Your task to perform on an android device: check google app version Image 0: 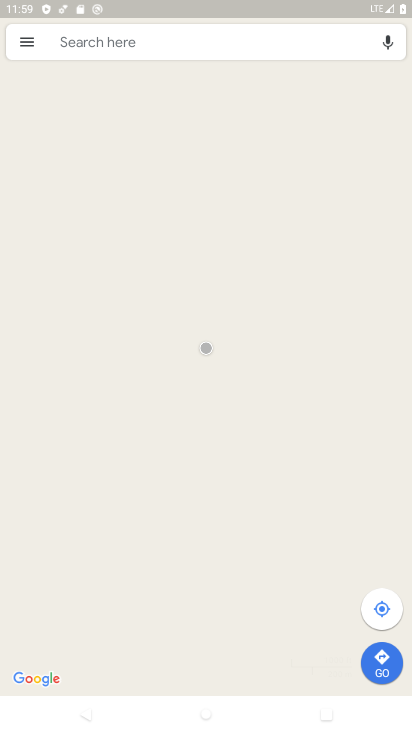
Step 0: press home button
Your task to perform on an android device: check google app version Image 1: 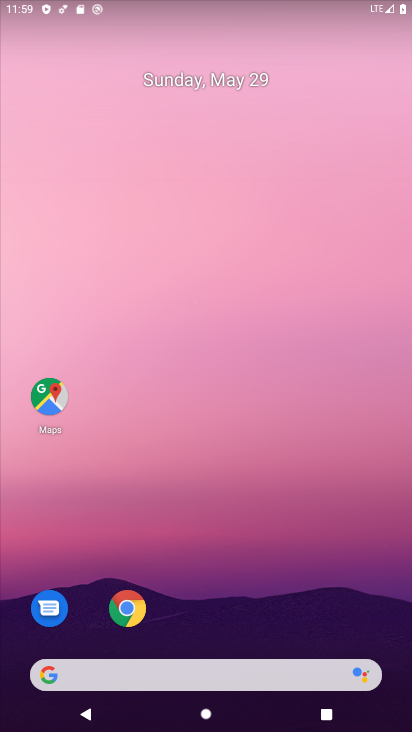
Step 1: click (47, 677)
Your task to perform on an android device: check google app version Image 2: 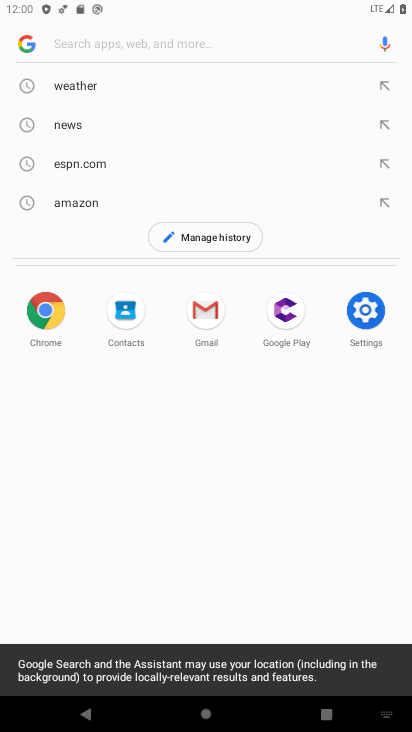
Step 2: click (28, 45)
Your task to perform on an android device: check google app version Image 3: 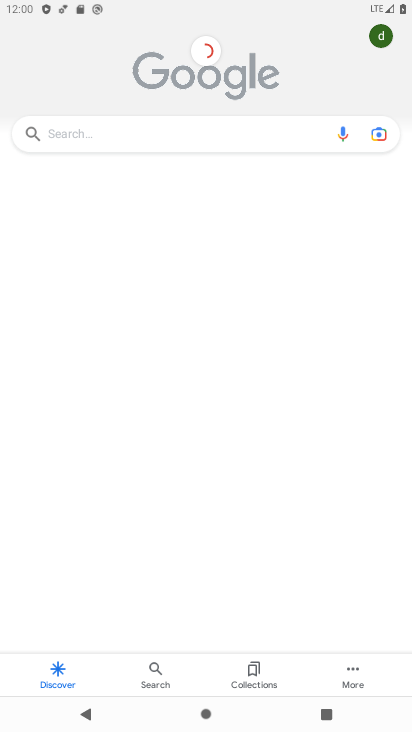
Step 3: click (346, 674)
Your task to perform on an android device: check google app version Image 4: 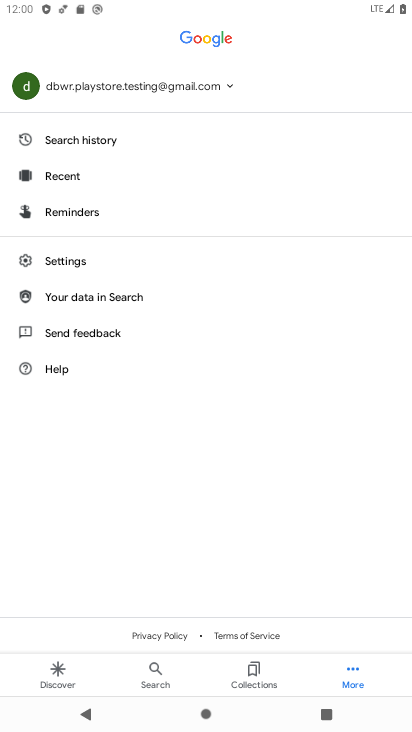
Step 4: click (77, 259)
Your task to perform on an android device: check google app version Image 5: 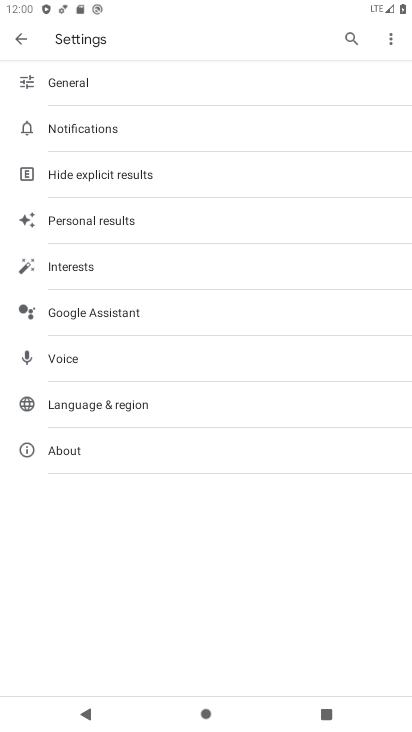
Step 5: click (72, 446)
Your task to perform on an android device: check google app version Image 6: 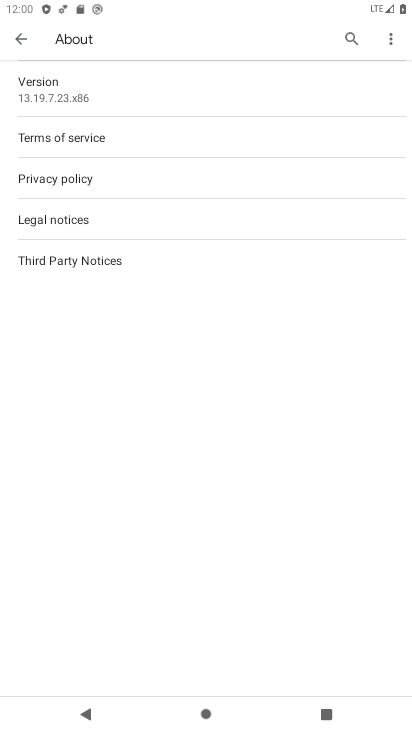
Step 6: task complete